Your task to perform on an android device: change the clock display to show seconds Image 0: 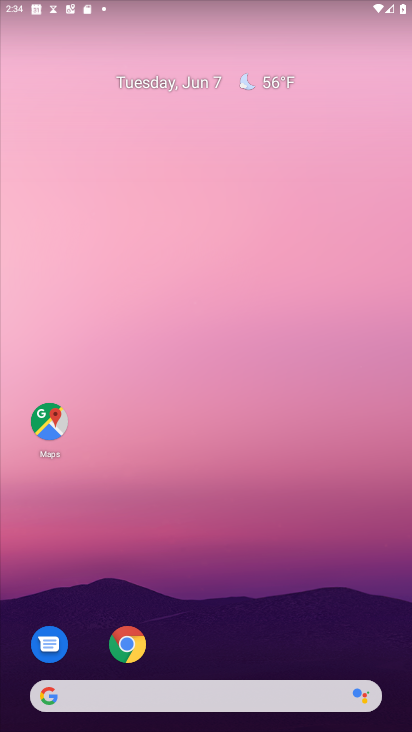
Step 0: press home button
Your task to perform on an android device: change the clock display to show seconds Image 1: 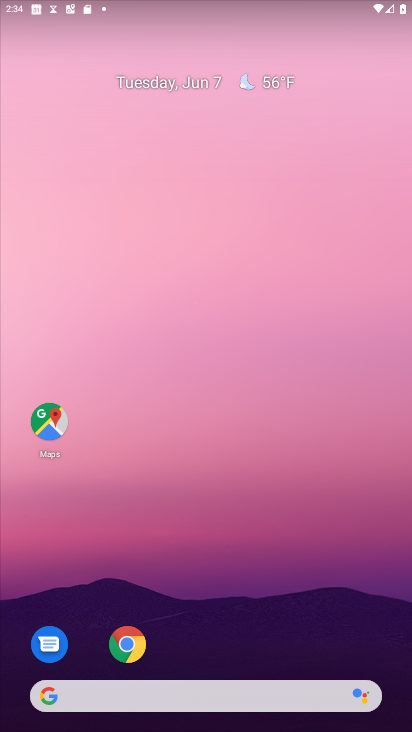
Step 1: drag from (224, 663) to (233, 1)
Your task to perform on an android device: change the clock display to show seconds Image 2: 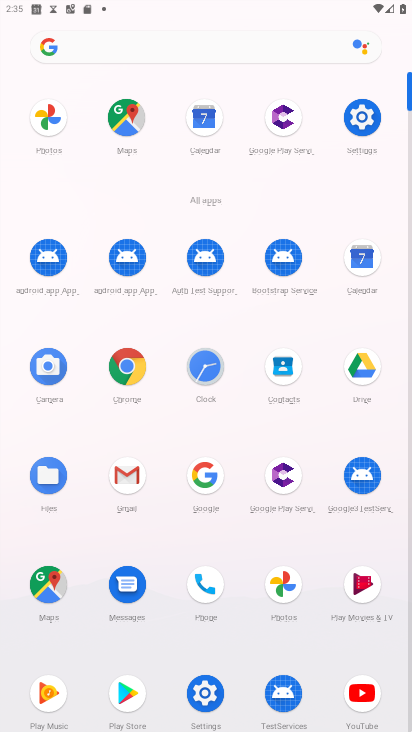
Step 2: click (203, 360)
Your task to perform on an android device: change the clock display to show seconds Image 3: 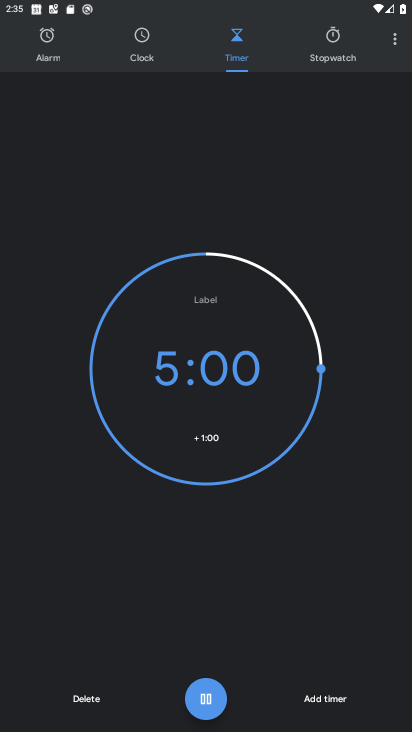
Step 3: click (81, 704)
Your task to perform on an android device: change the clock display to show seconds Image 4: 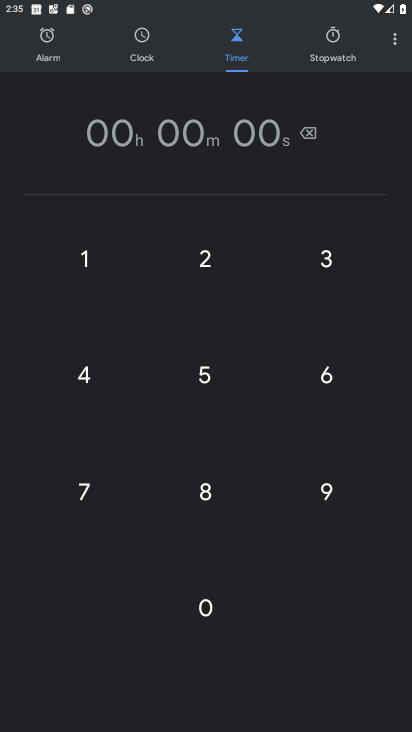
Step 4: click (390, 37)
Your task to perform on an android device: change the clock display to show seconds Image 5: 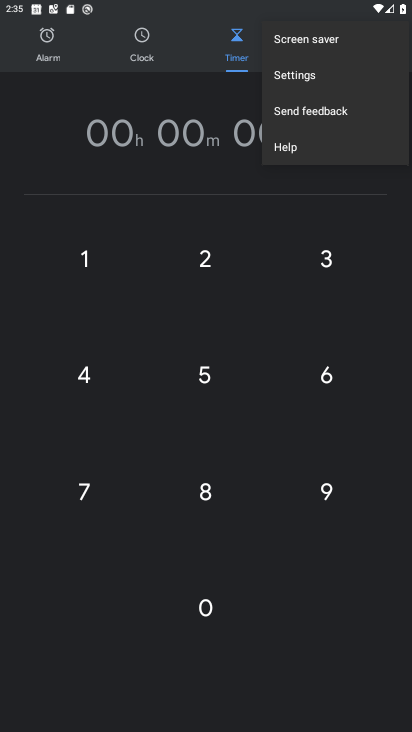
Step 5: click (318, 75)
Your task to perform on an android device: change the clock display to show seconds Image 6: 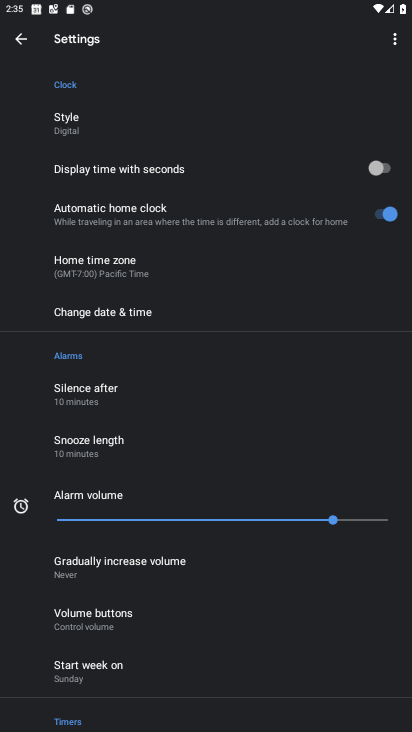
Step 6: click (95, 123)
Your task to perform on an android device: change the clock display to show seconds Image 7: 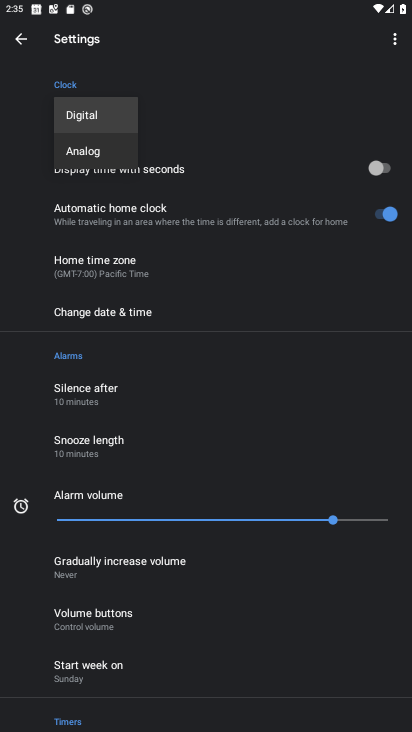
Step 7: click (200, 170)
Your task to perform on an android device: change the clock display to show seconds Image 8: 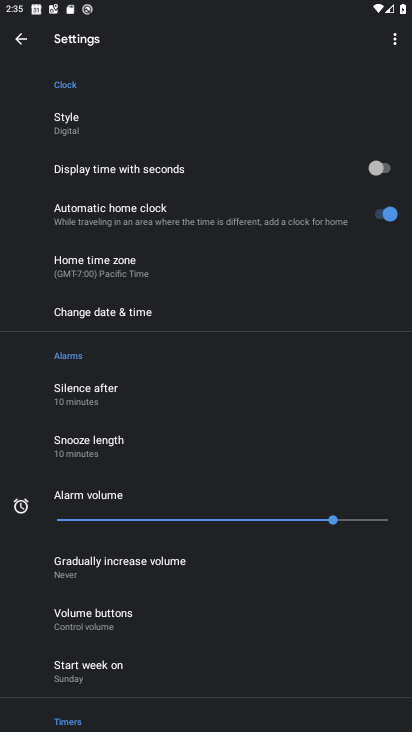
Step 8: click (374, 160)
Your task to perform on an android device: change the clock display to show seconds Image 9: 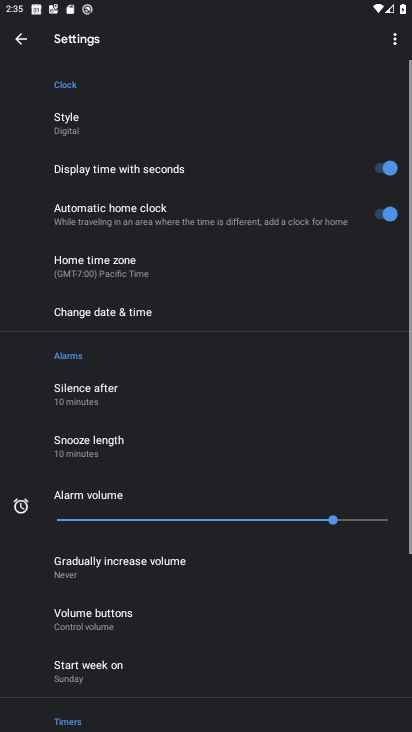
Step 9: task complete